Your task to perform on an android device: clear all cookies in the chrome app Image 0: 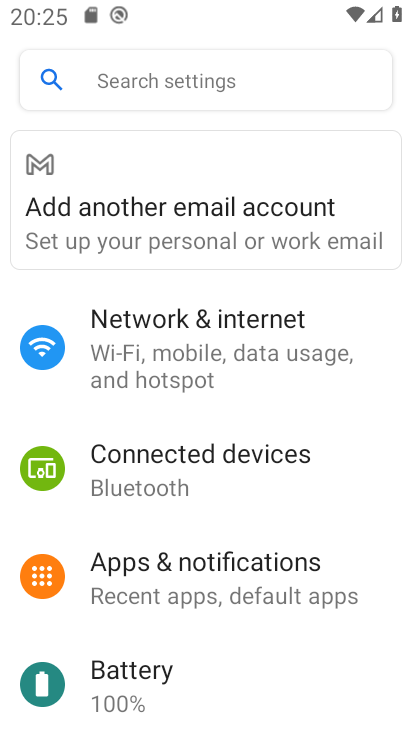
Step 0: press home button
Your task to perform on an android device: clear all cookies in the chrome app Image 1: 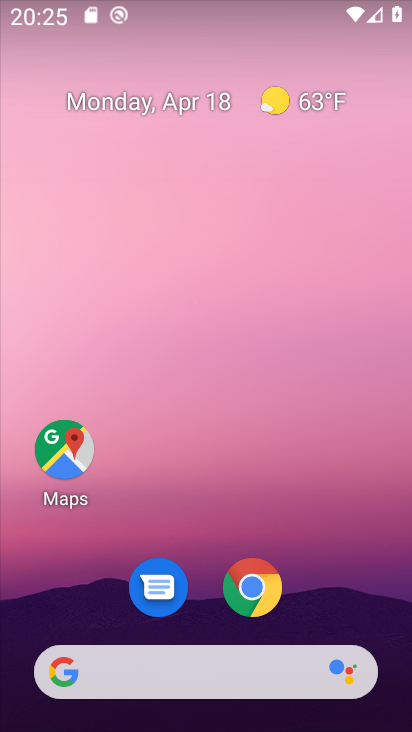
Step 1: click (245, 579)
Your task to perform on an android device: clear all cookies in the chrome app Image 2: 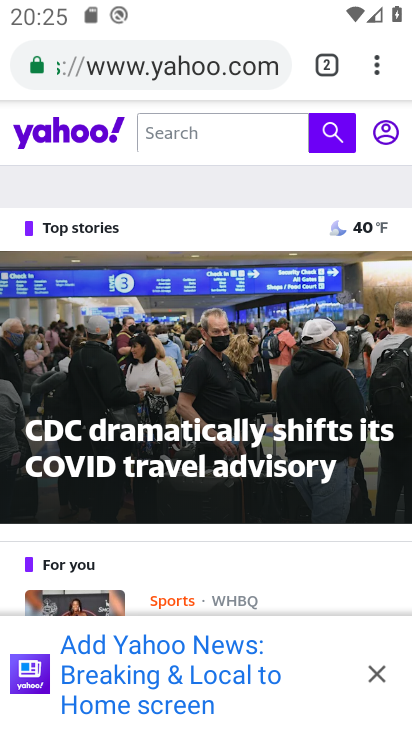
Step 2: click (374, 669)
Your task to perform on an android device: clear all cookies in the chrome app Image 3: 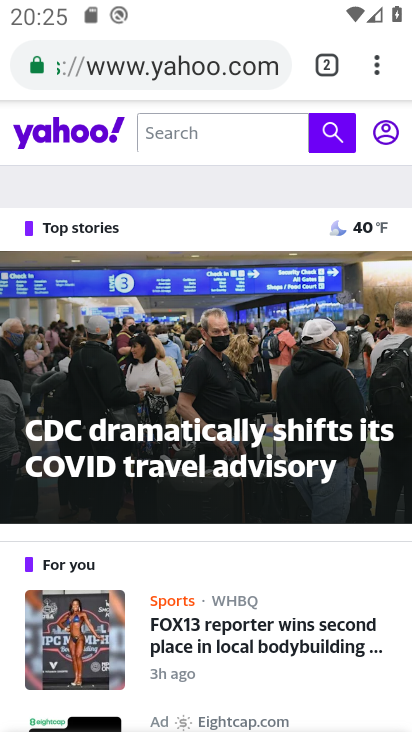
Step 3: click (369, 69)
Your task to perform on an android device: clear all cookies in the chrome app Image 4: 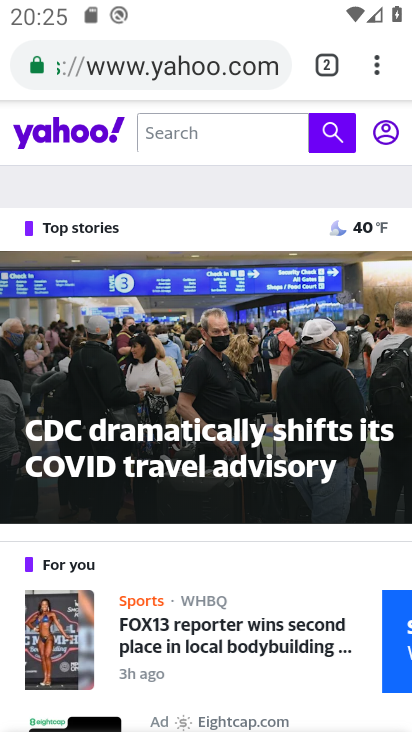
Step 4: click (382, 64)
Your task to perform on an android device: clear all cookies in the chrome app Image 5: 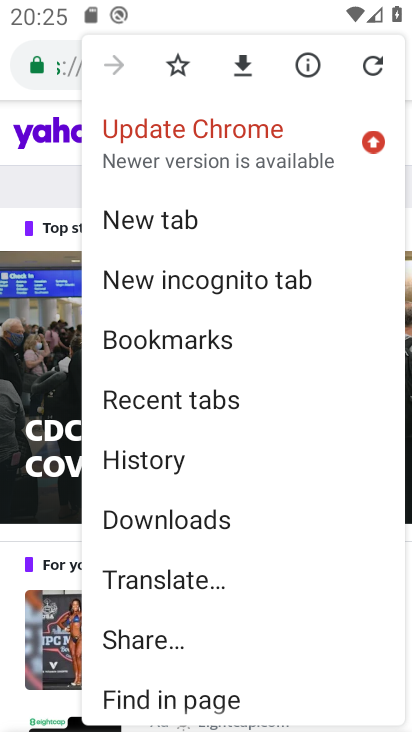
Step 5: drag from (238, 411) to (273, 277)
Your task to perform on an android device: clear all cookies in the chrome app Image 6: 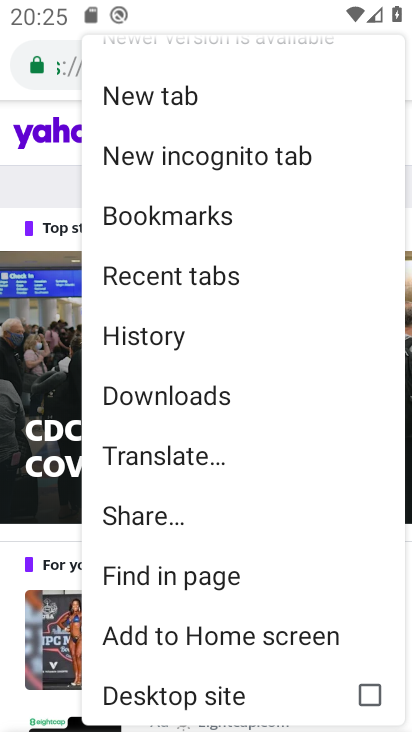
Step 6: click (212, 348)
Your task to perform on an android device: clear all cookies in the chrome app Image 7: 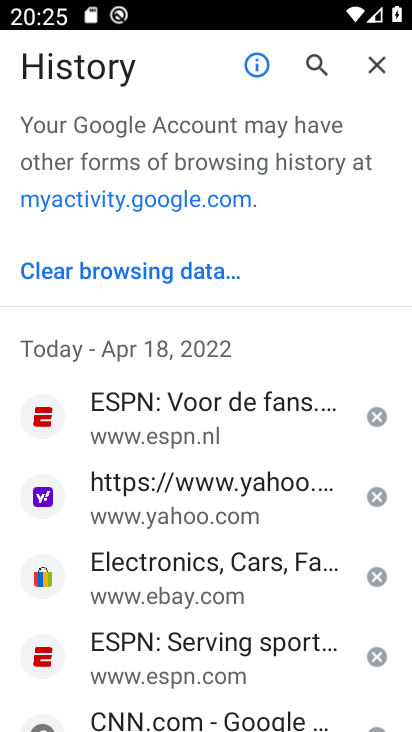
Step 7: click (197, 289)
Your task to perform on an android device: clear all cookies in the chrome app Image 8: 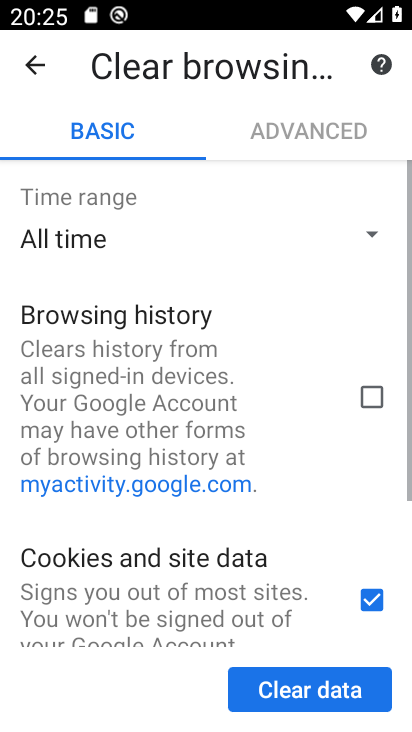
Step 8: drag from (188, 559) to (252, 289)
Your task to perform on an android device: clear all cookies in the chrome app Image 9: 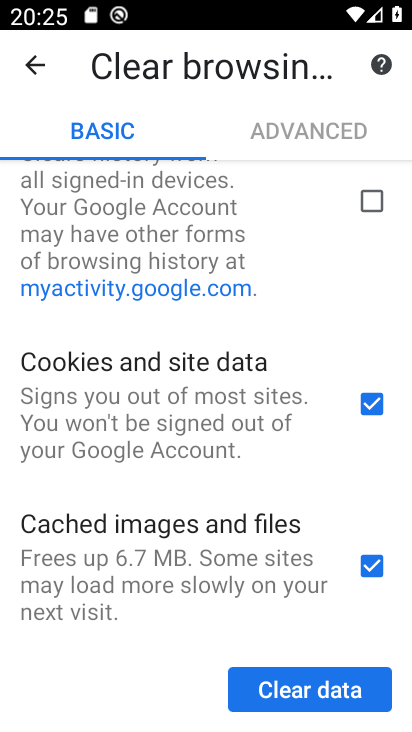
Step 9: click (336, 567)
Your task to perform on an android device: clear all cookies in the chrome app Image 10: 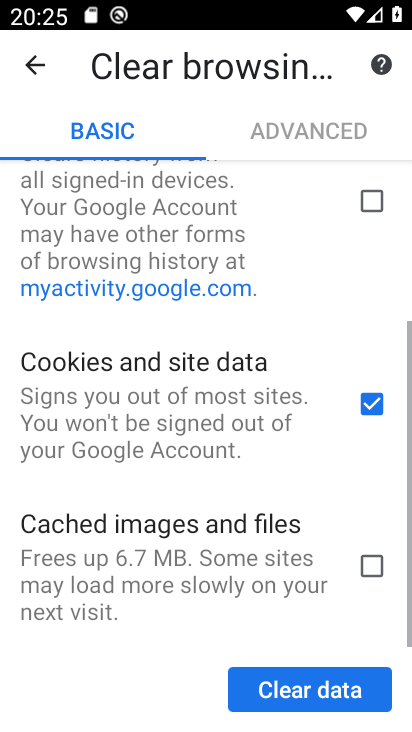
Step 10: click (330, 683)
Your task to perform on an android device: clear all cookies in the chrome app Image 11: 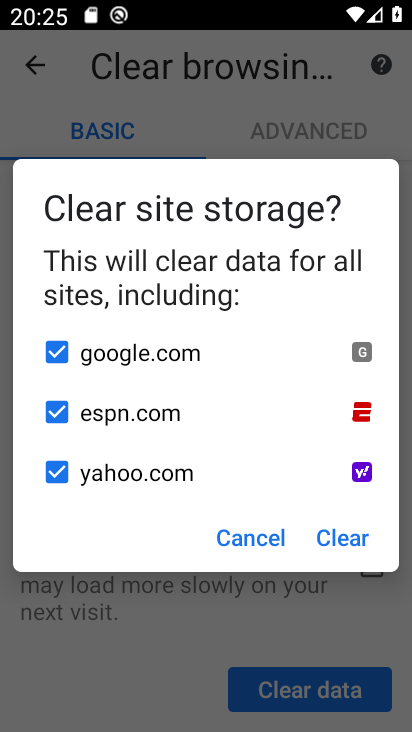
Step 11: task complete